Your task to perform on an android device: Look up the best rated desk lamps on IKEA Image 0: 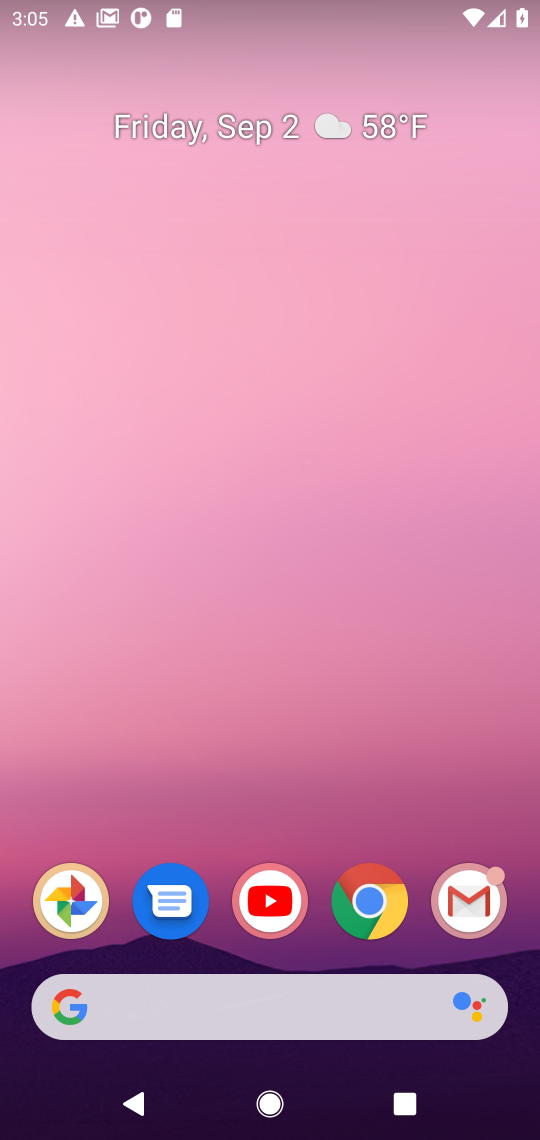
Step 0: drag from (358, 792) to (242, 42)
Your task to perform on an android device: Look up the best rated desk lamps on IKEA Image 1: 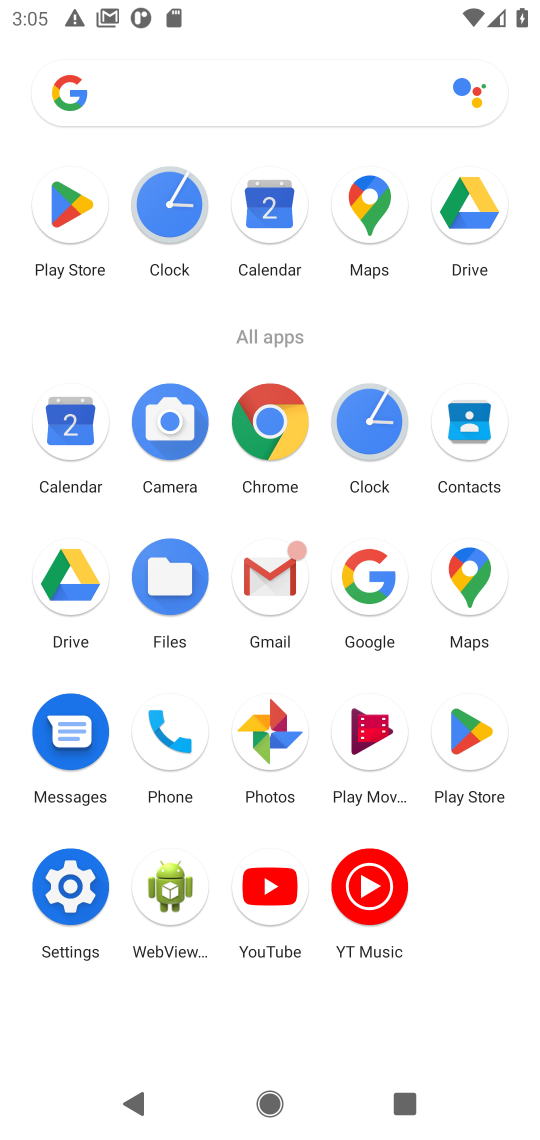
Step 1: click (265, 409)
Your task to perform on an android device: Look up the best rated desk lamps on IKEA Image 2: 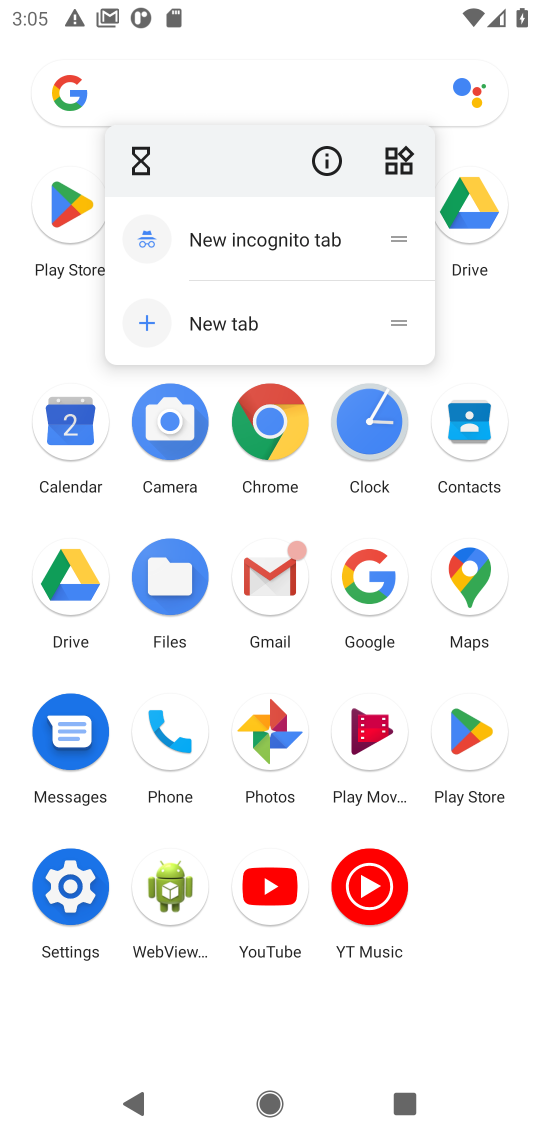
Step 2: click (271, 431)
Your task to perform on an android device: Look up the best rated desk lamps on IKEA Image 3: 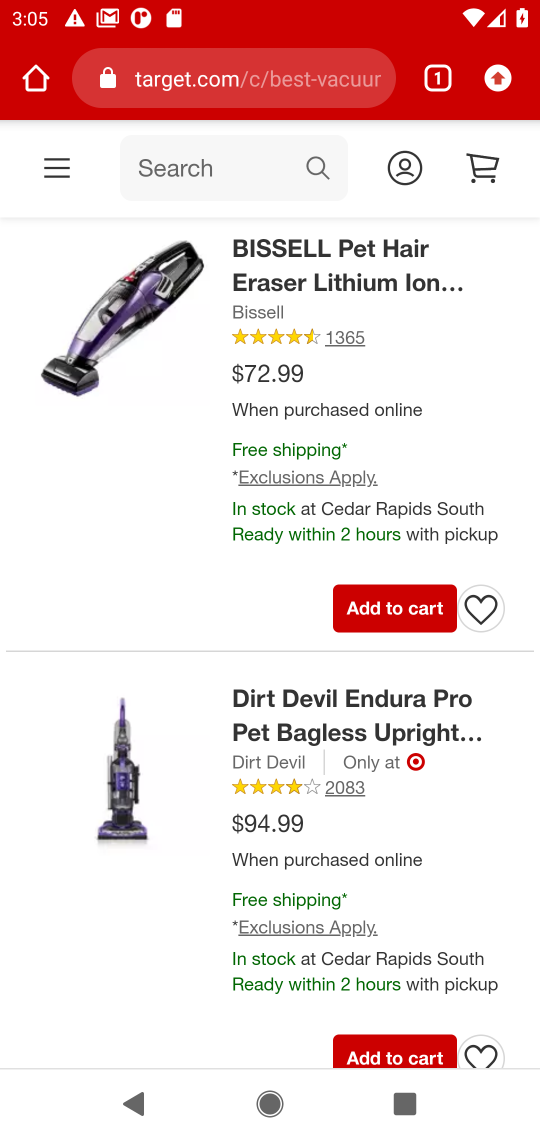
Step 3: click (226, 63)
Your task to perform on an android device: Look up the best rated desk lamps on IKEA Image 4: 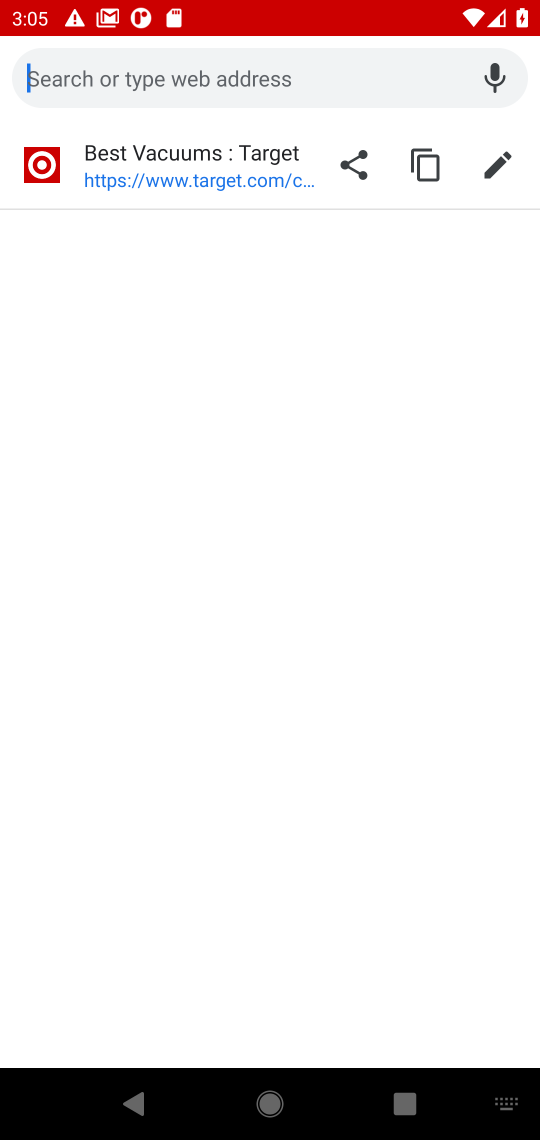
Step 4: click (312, 87)
Your task to perform on an android device: Look up the best rated desk lamps on IKEA Image 5: 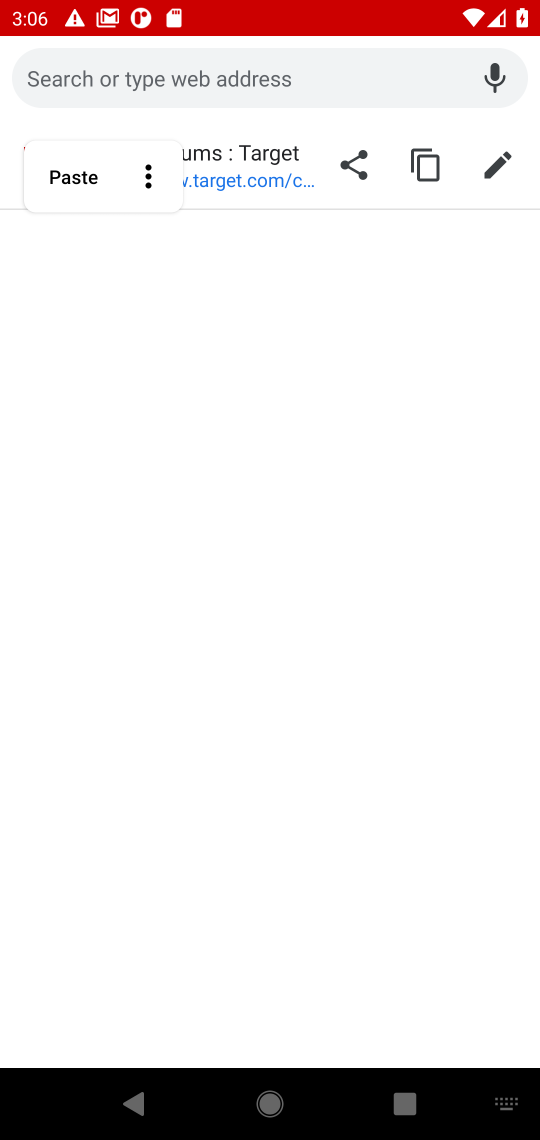
Step 5: type "best rated desk lamps on IKEA"
Your task to perform on an android device: Look up the best rated desk lamps on IKEA Image 6: 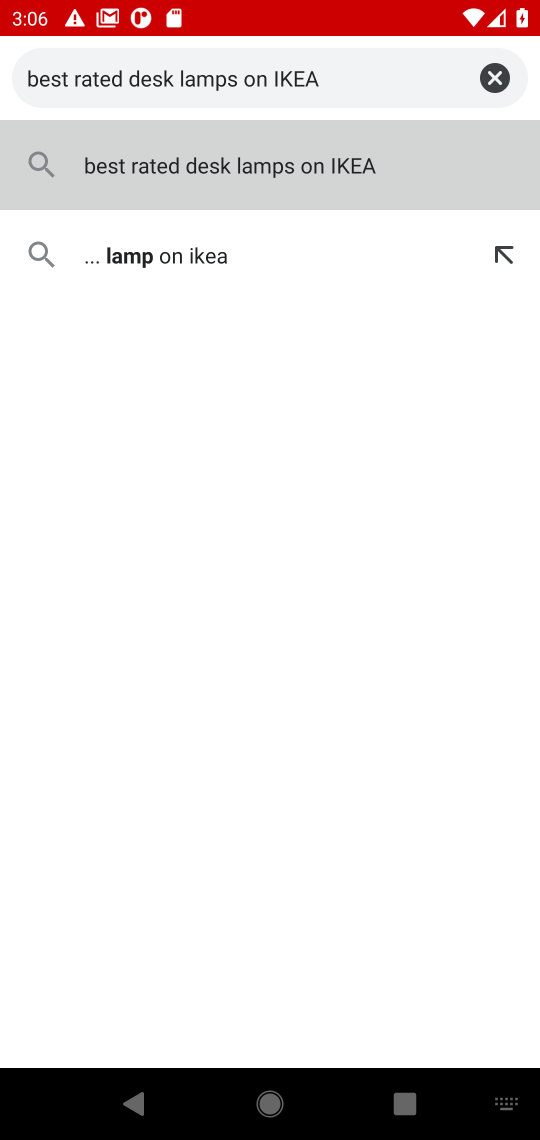
Step 6: press enter
Your task to perform on an android device: Look up the best rated desk lamps on IKEA Image 7: 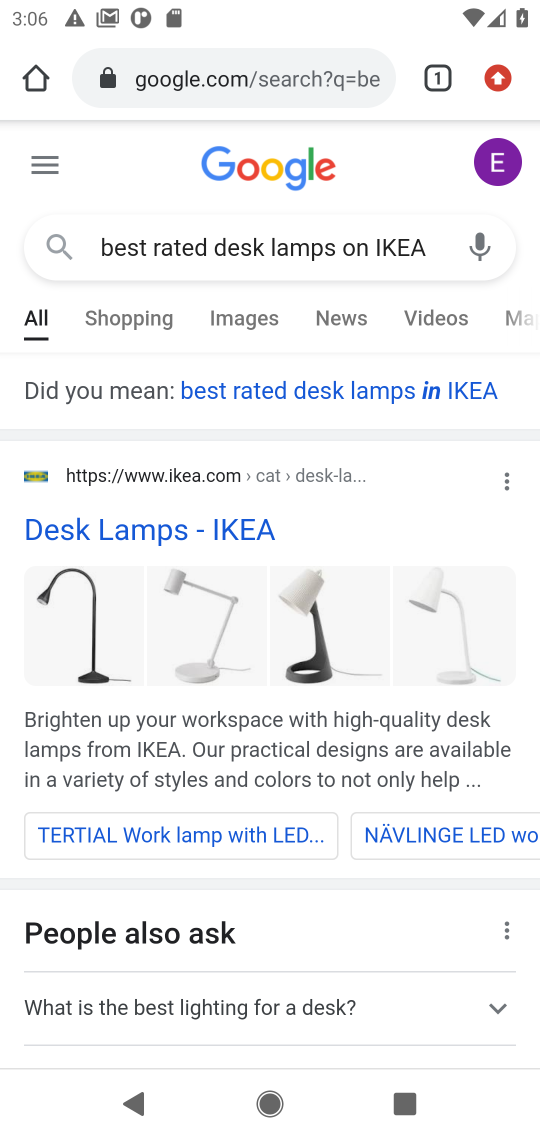
Step 7: drag from (270, 882) to (280, 391)
Your task to perform on an android device: Look up the best rated desk lamps on IKEA Image 8: 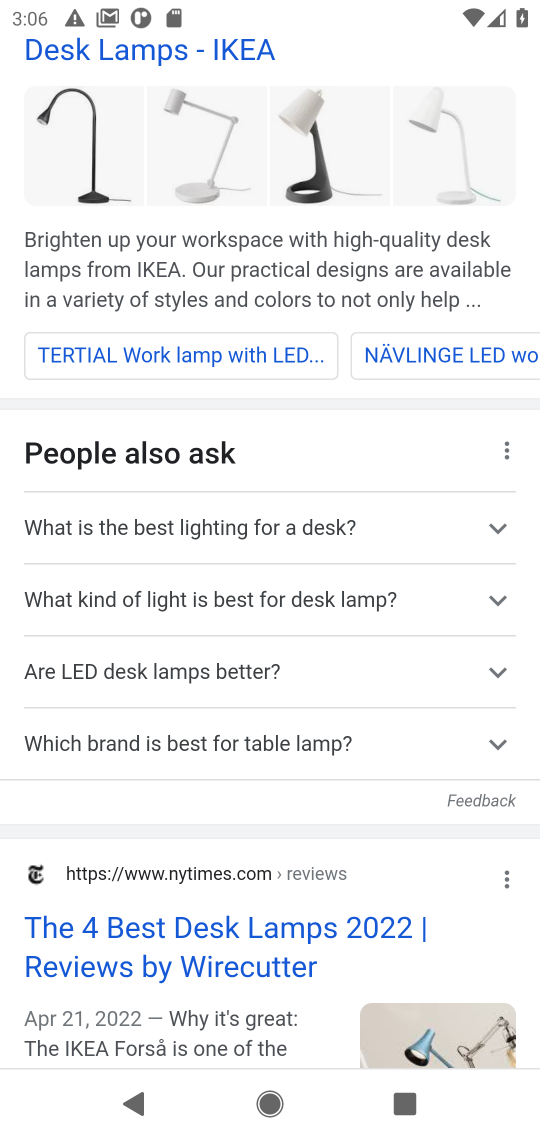
Step 8: drag from (213, 308) to (203, 500)
Your task to perform on an android device: Look up the best rated desk lamps on IKEA Image 9: 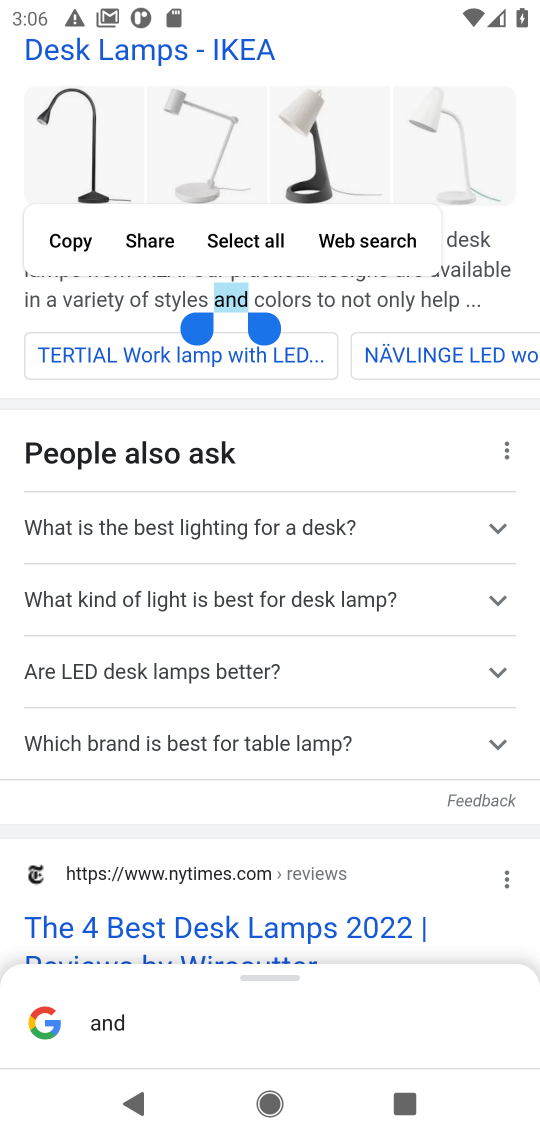
Step 9: click (219, 55)
Your task to perform on an android device: Look up the best rated desk lamps on IKEA Image 10: 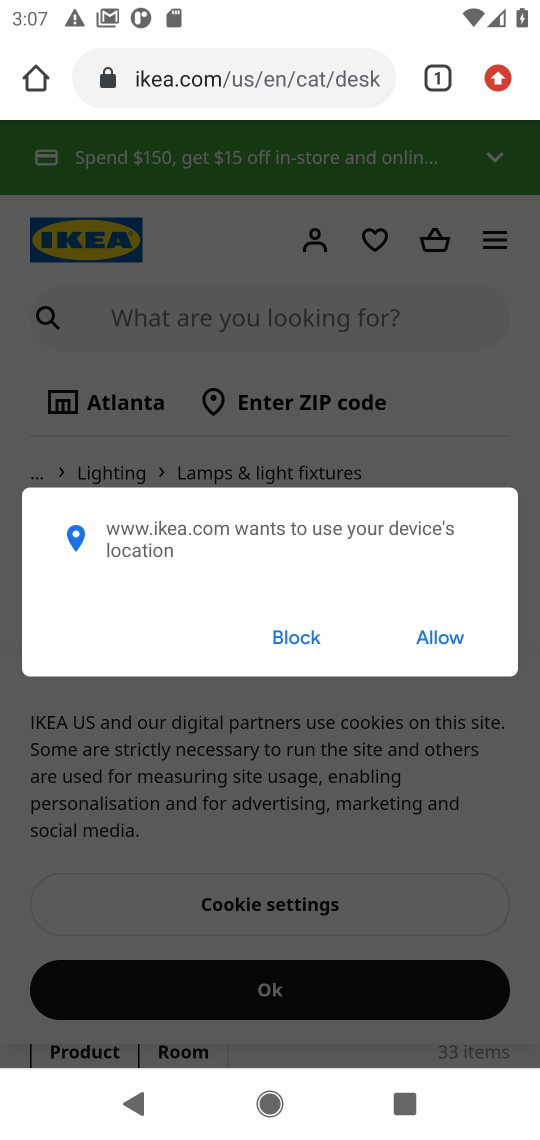
Step 10: click (294, 640)
Your task to perform on an android device: Look up the best rated desk lamps on IKEA Image 11: 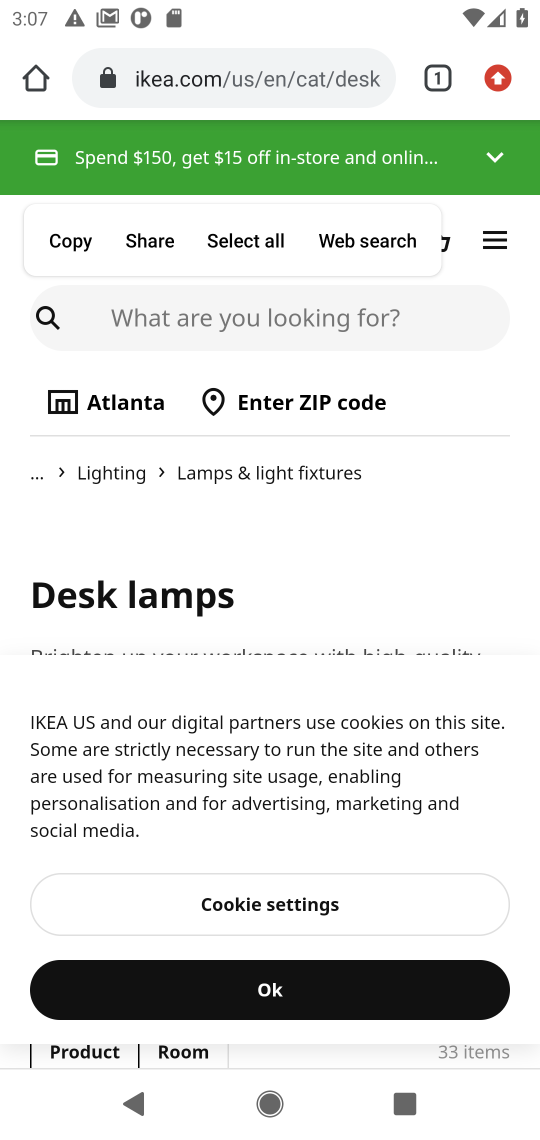
Step 11: task complete